Your task to perform on an android device: turn on the 12-hour format for clock Image 0: 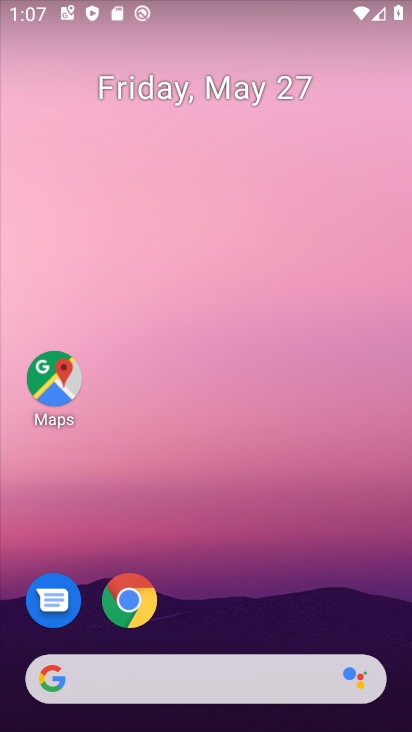
Step 0: drag from (214, 721) to (217, 89)
Your task to perform on an android device: turn on the 12-hour format for clock Image 1: 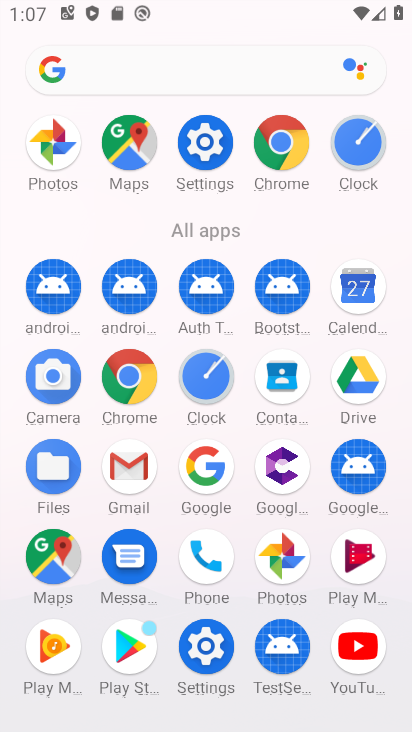
Step 1: click (356, 152)
Your task to perform on an android device: turn on the 12-hour format for clock Image 2: 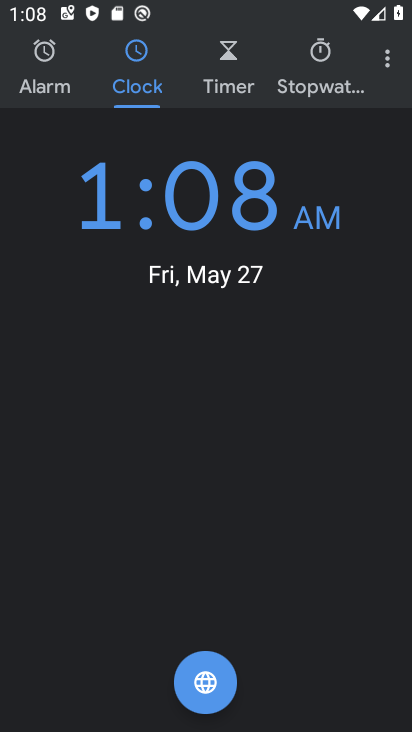
Step 2: click (386, 64)
Your task to perform on an android device: turn on the 12-hour format for clock Image 3: 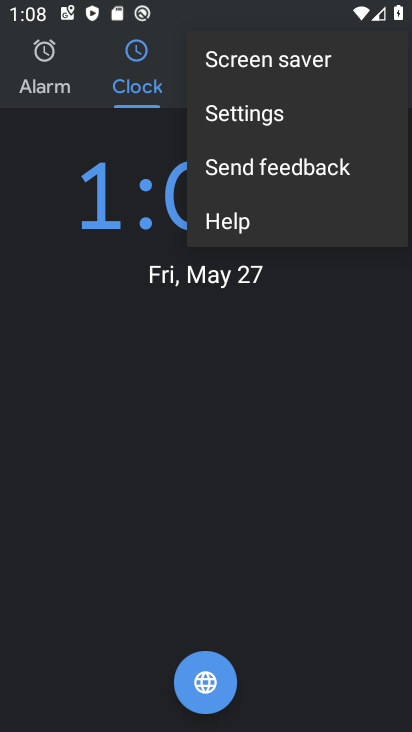
Step 3: click (249, 110)
Your task to perform on an android device: turn on the 12-hour format for clock Image 4: 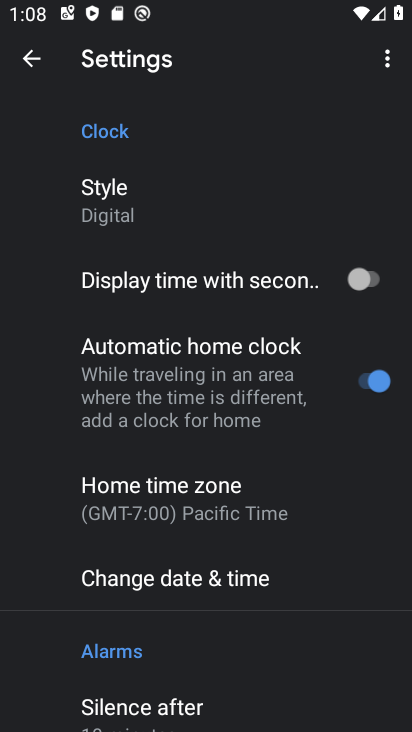
Step 4: drag from (173, 670) to (160, 265)
Your task to perform on an android device: turn on the 12-hour format for clock Image 5: 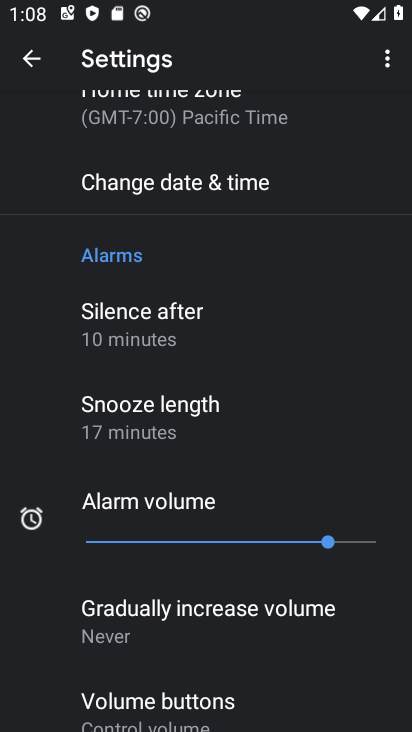
Step 5: click (151, 183)
Your task to perform on an android device: turn on the 12-hour format for clock Image 6: 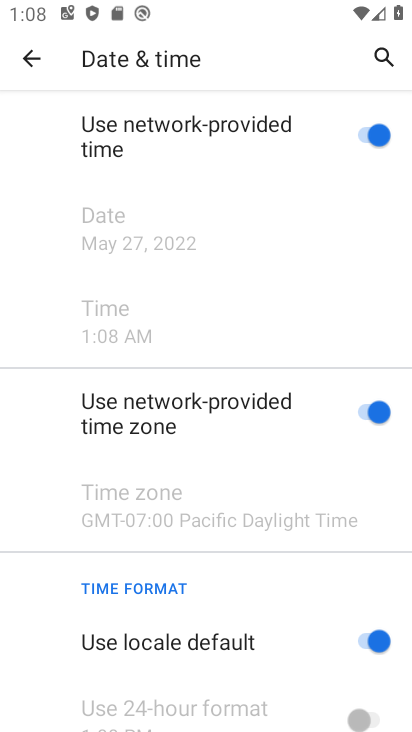
Step 6: task complete